Your task to perform on an android device: empty trash in the gmail app Image 0: 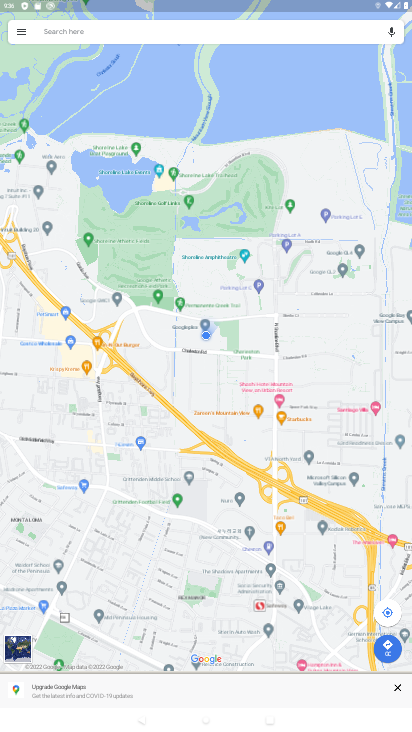
Step 0: press home button
Your task to perform on an android device: empty trash in the gmail app Image 1: 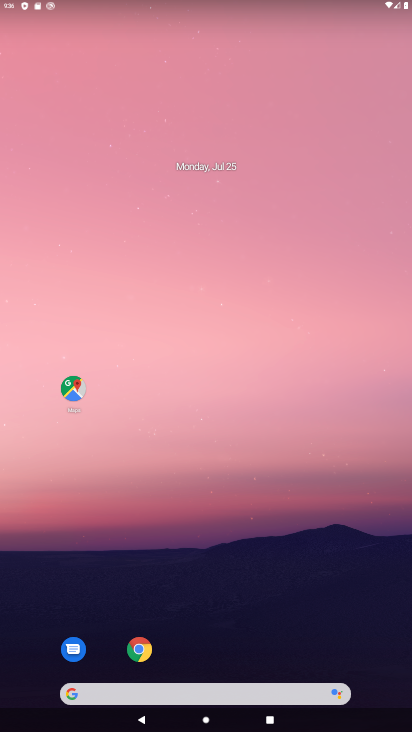
Step 1: drag from (187, 632) to (256, 71)
Your task to perform on an android device: empty trash in the gmail app Image 2: 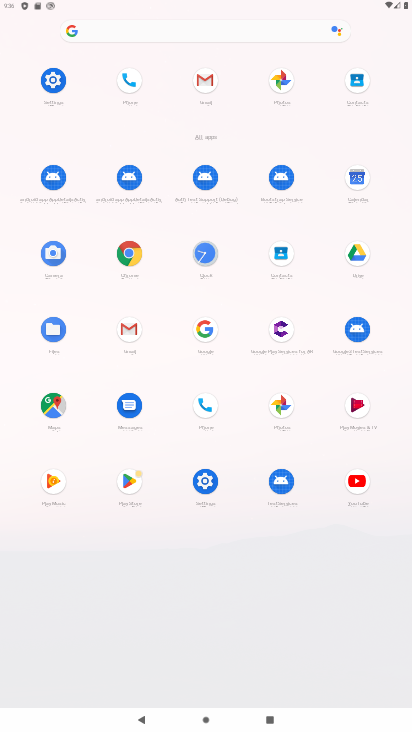
Step 2: click (124, 332)
Your task to perform on an android device: empty trash in the gmail app Image 3: 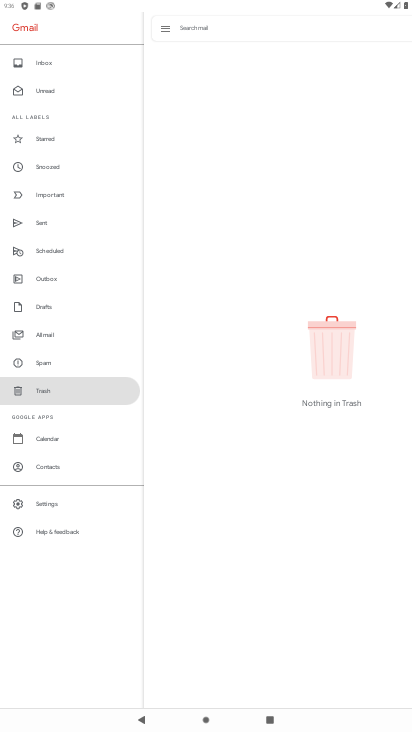
Step 3: task complete